Your task to perform on an android device: check the backup settings in the google photos Image 0: 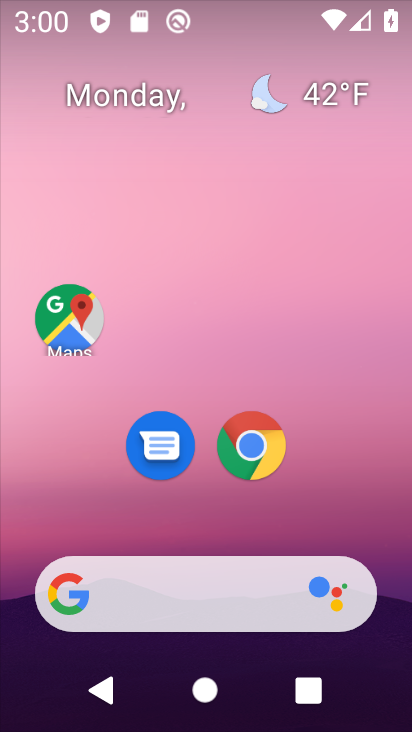
Step 0: drag from (7, 461) to (231, 21)
Your task to perform on an android device: check the backup settings in the google photos Image 1: 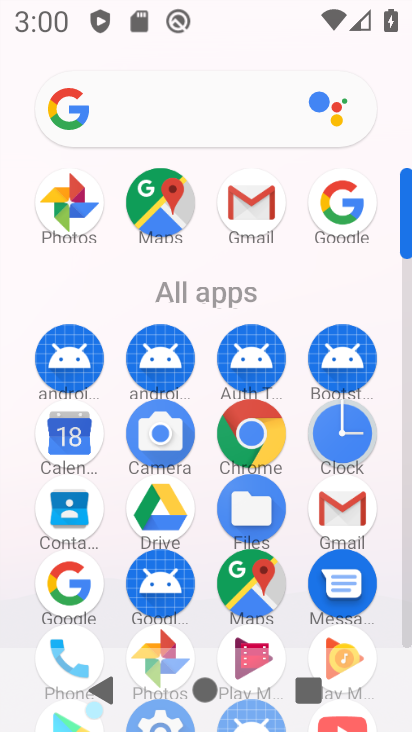
Step 1: click (165, 636)
Your task to perform on an android device: check the backup settings in the google photos Image 2: 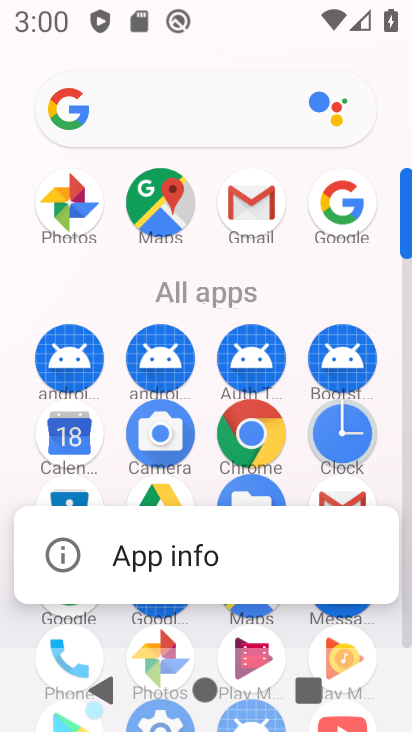
Step 2: click (165, 636)
Your task to perform on an android device: check the backup settings in the google photos Image 3: 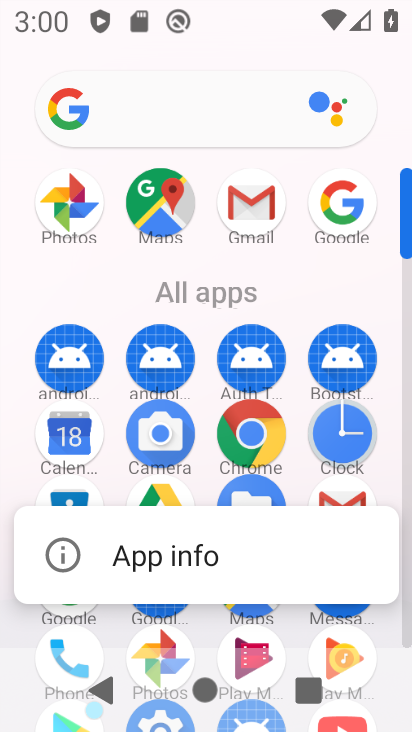
Step 3: click (165, 636)
Your task to perform on an android device: check the backup settings in the google photos Image 4: 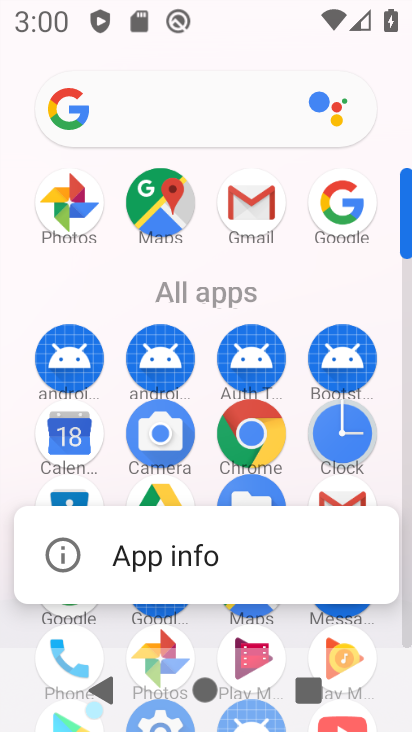
Step 4: click (165, 636)
Your task to perform on an android device: check the backup settings in the google photos Image 5: 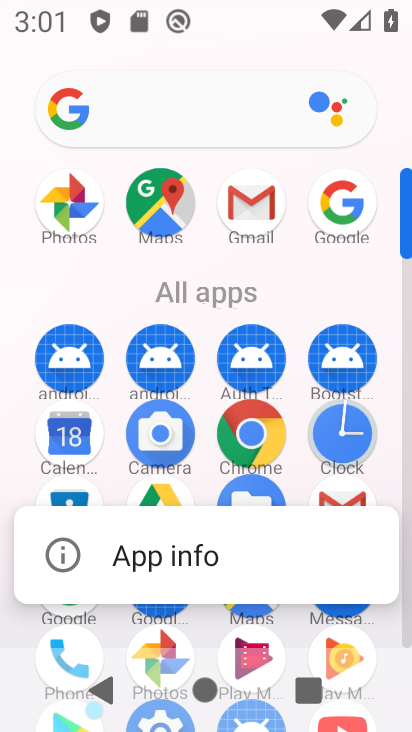
Step 5: click (407, 629)
Your task to perform on an android device: check the backup settings in the google photos Image 6: 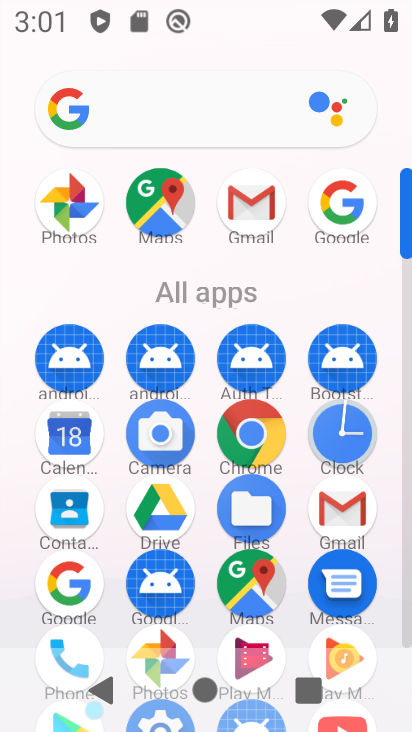
Step 6: click (407, 641)
Your task to perform on an android device: check the backup settings in the google photos Image 7: 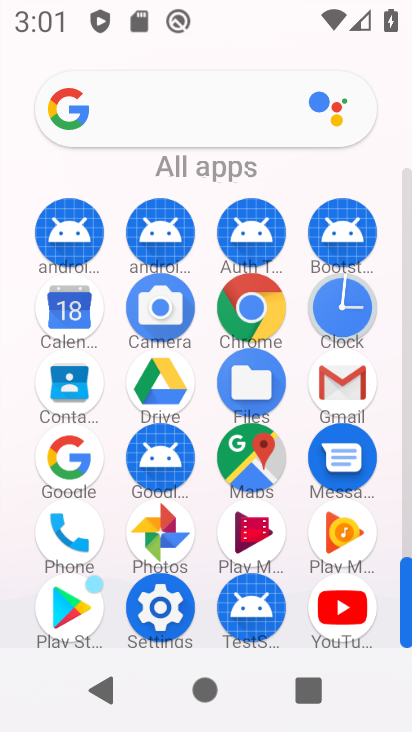
Step 7: click (156, 535)
Your task to perform on an android device: check the backup settings in the google photos Image 8: 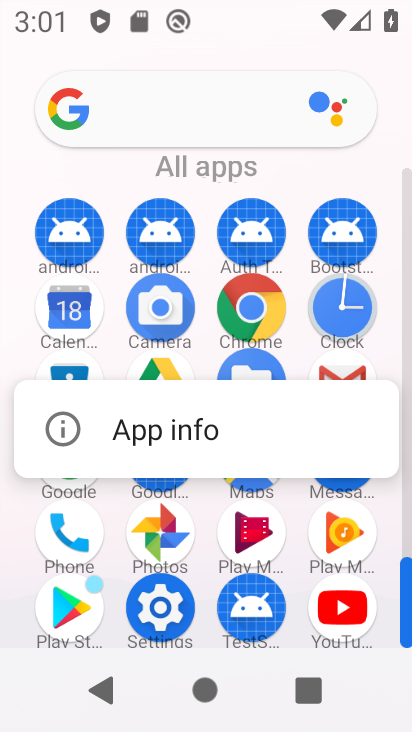
Step 8: click (156, 535)
Your task to perform on an android device: check the backup settings in the google photos Image 9: 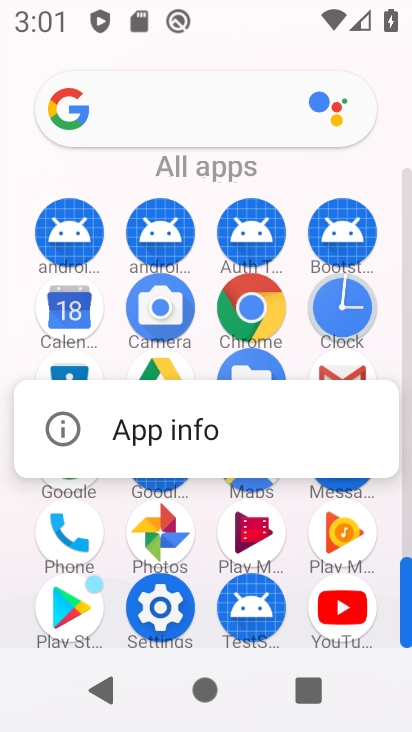
Step 9: click (156, 535)
Your task to perform on an android device: check the backup settings in the google photos Image 10: 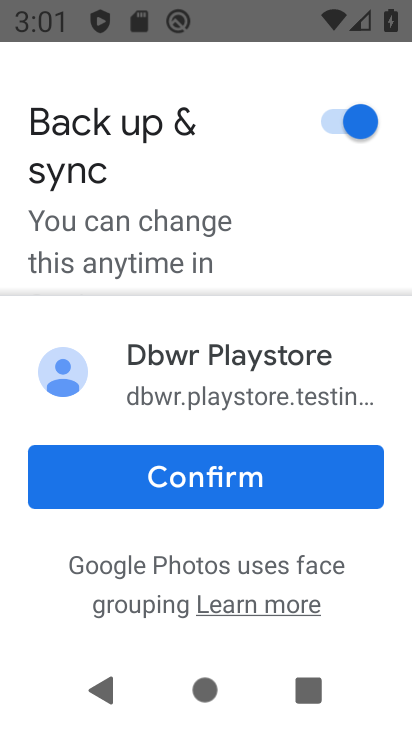
Step 10: click (194, 470)
Your task to perform on an android device: check the backup settings in the google photos Image 11: 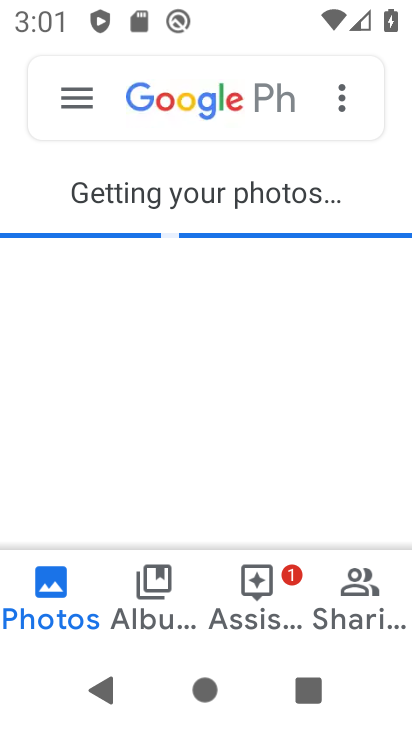
Step 11: click (71, 93)
Your task to perform on an android device: check the backup settings in the google photos Image 12: 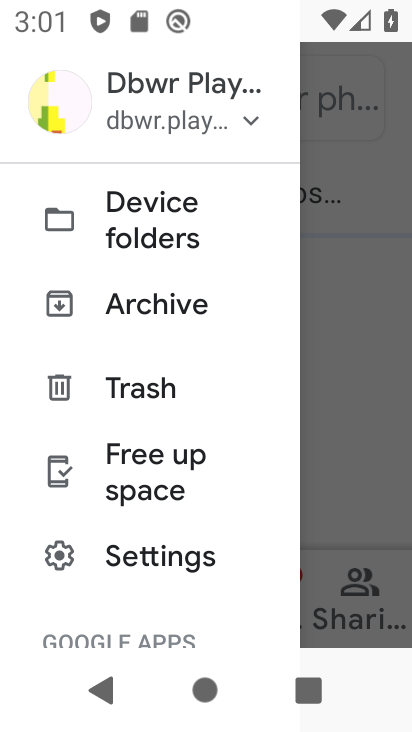
Step 12: drag from (115, 588) to (162, 172)
Your task to perform on an android device: check the backup settings in the google photos Image 13: 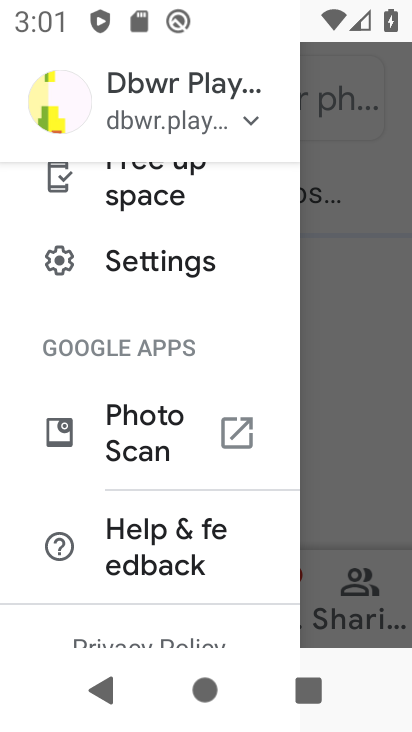
Step 13: drag from (125, 595) to (158, 347)
Your task to perform on an android device: check the backup settings in the google photos Image 14: 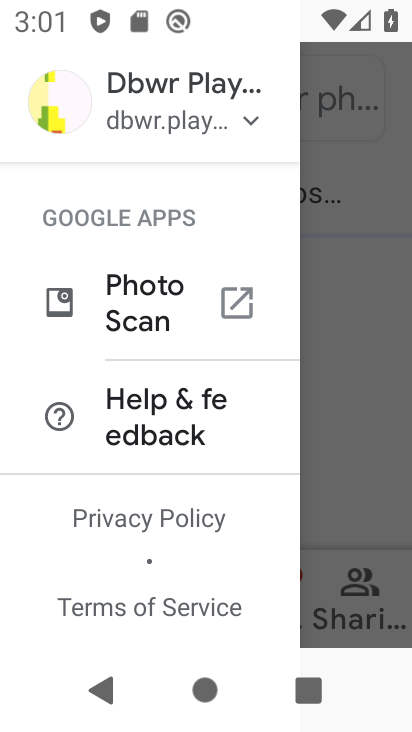
Step 14: drag from (149, 250) to (81, 637)
Your task to perform on an android device: check the backup settings in the google photos Image 15: 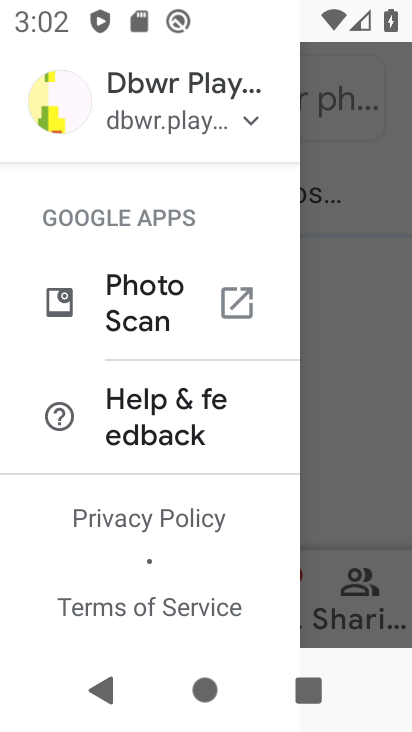
Step 15: drag from (185, 249) to (151, 628)
Your task to perform on an android device: check the backup settings in the google photos Image 16: 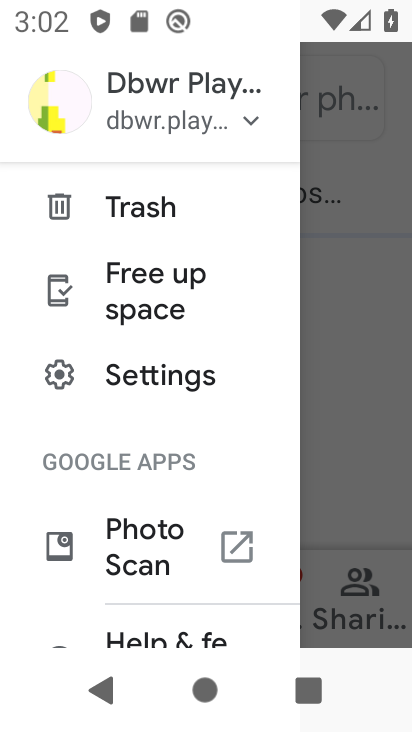
Step 16: click (155, 390)
Your task to perform on an android device: check the backup settings in the google photos Image 17: 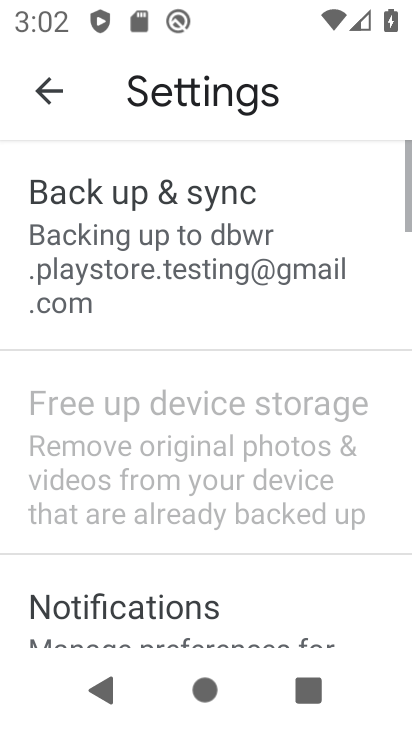
Step 17: click (174, 267)
Your task to perform on an android device: check the backup settings in the google photos Image 18: 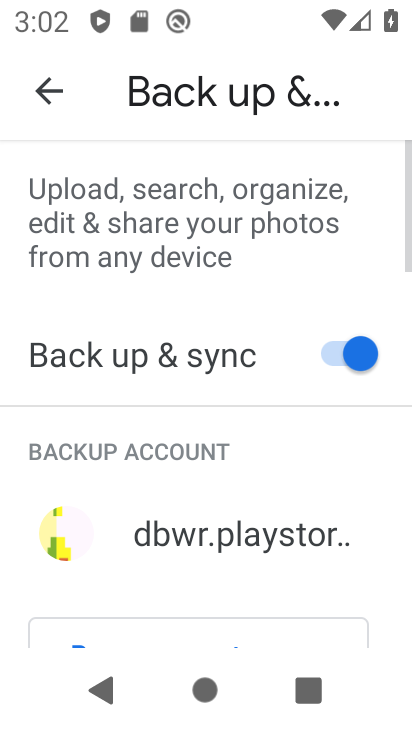
Step 18: click (234, 237)
Your task to perform on an android device: check the backup settings in the google photos Image 19: 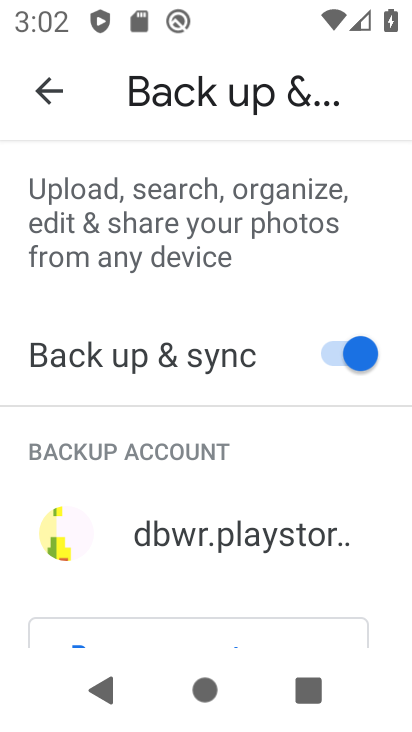
Step 19: task complete